Your task to perform on an android device: change the clock display to show seconds Image 0: 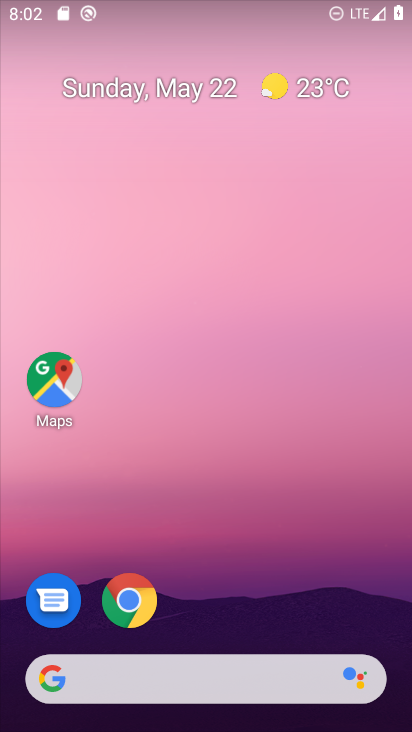
Step 0: drag from (354, 624) to (281, 0)
Your task to perform on an android device: change the clock display to show seconds Image 1: 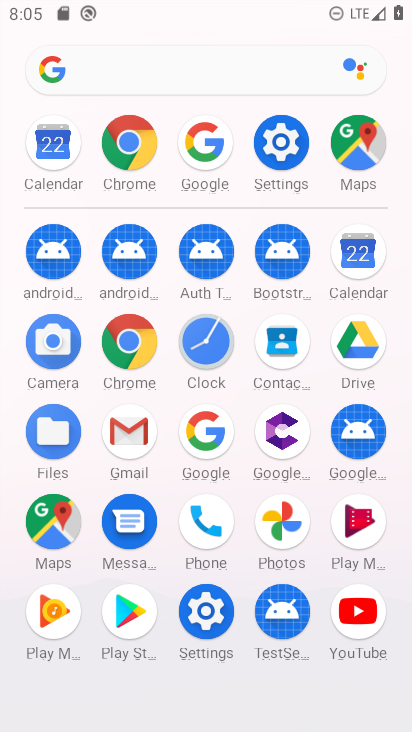
Step 1: click (216, 349)
Your task to perform on an android device: change the clock display to show seconds Image 2: 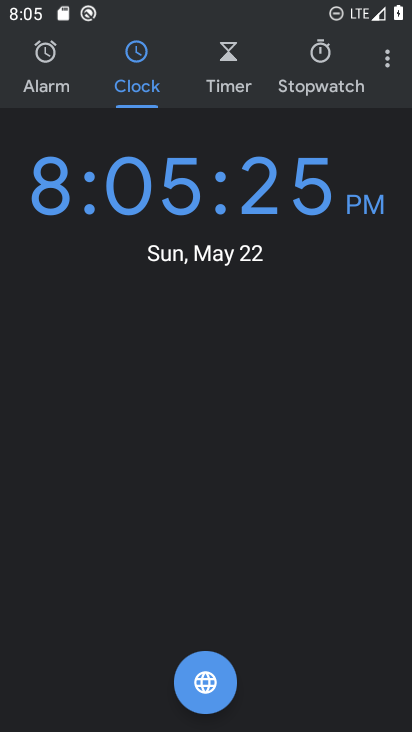
Step 2: click (386, 49)
Your task to perform on an android device: change the clock display to show seconds Image 3: 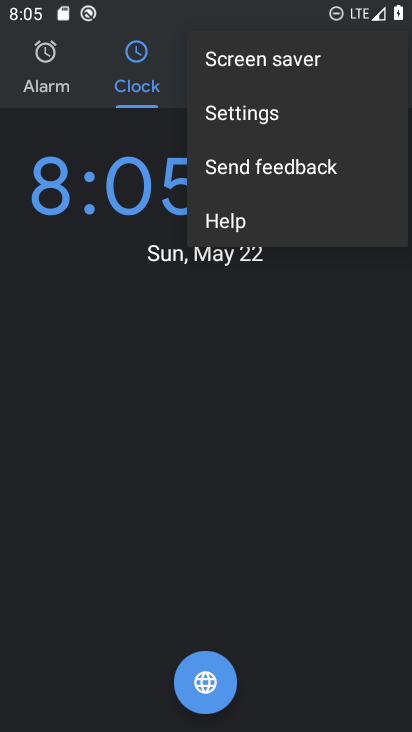
Step 3: click (271, 123)
Your task to perform on an android device: change the clock display to show seconds Image 4: 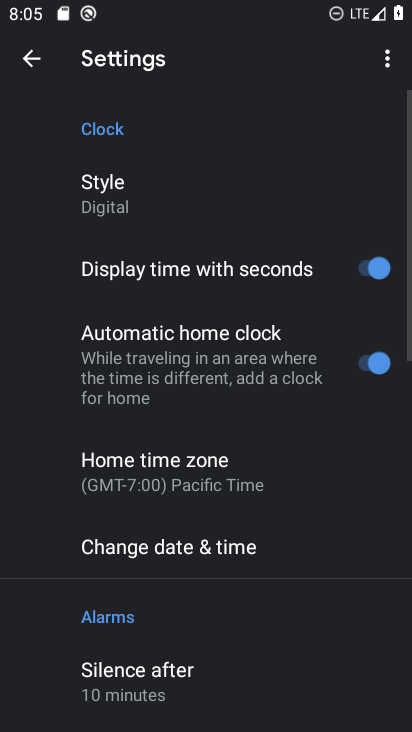
Step 4: click (379, 266)
Your task to perform on an android device: change the clock display to show seconds Image 5: 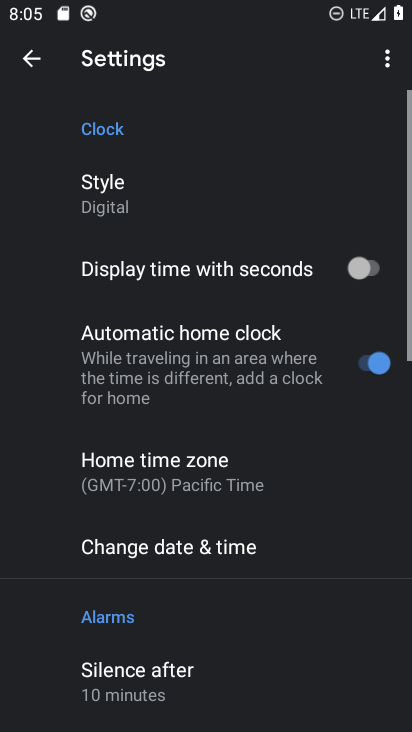
Step 5: task complete